Your task to perform on an android device: Open notification settings Image 0: 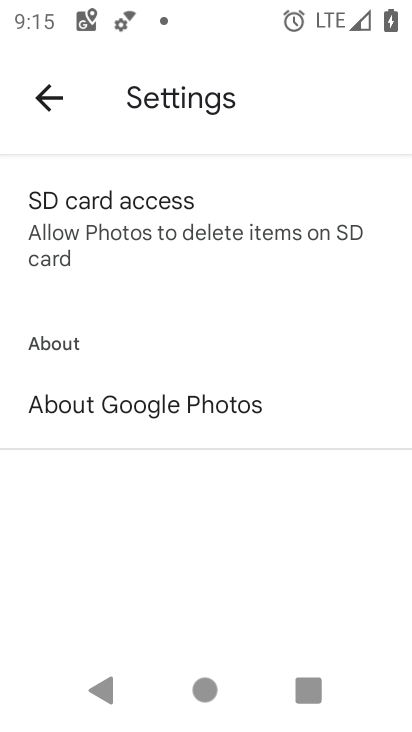
Step 0: press home button
Your task to perform on an android device: Open notification settings Image 1: 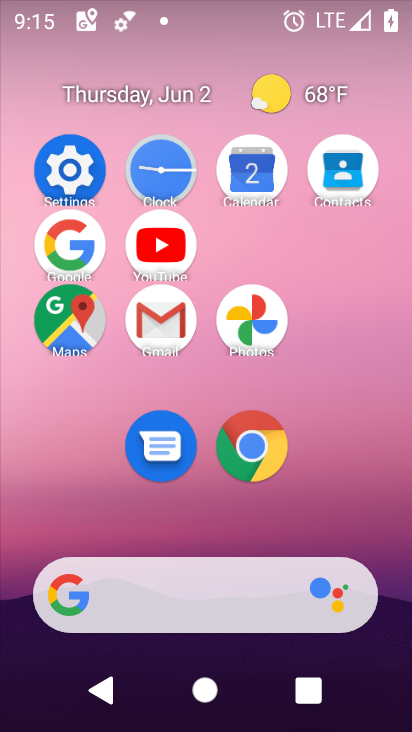
Step 1: click (50, 151)
Your task to perform on an android device: Open notification settings Image 2: 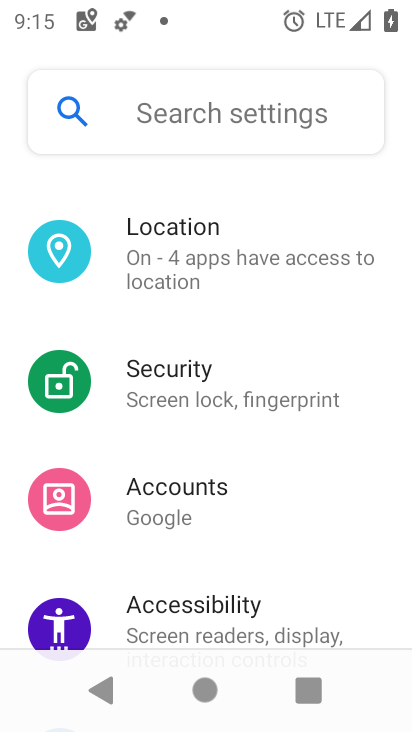
Step 2: drag from (317, 259) to (339, 629)
Your task to perform on an android device: Open notification settings Image 3: 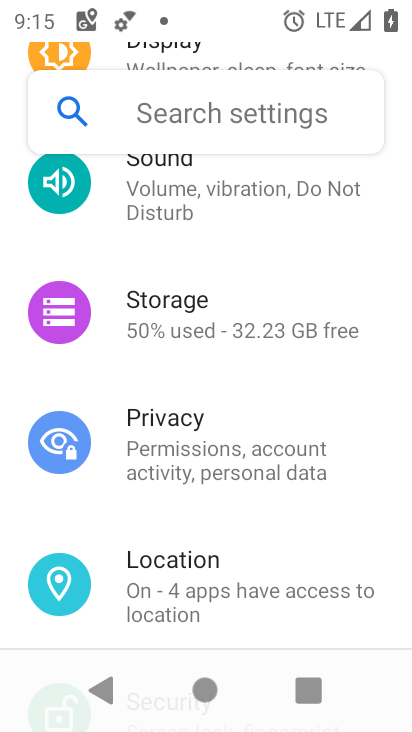
Step 3: drag from (294, 242) to (270, 506)
Your task to perform on an android device: Open notification settings Image 4: 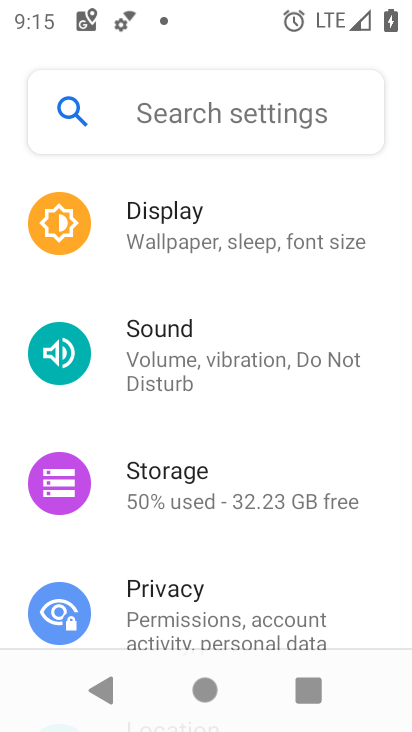
Step 4: drag from (310, 203) to (269, 507)
Your task to perform on an android device: Open notification settings Image 5: 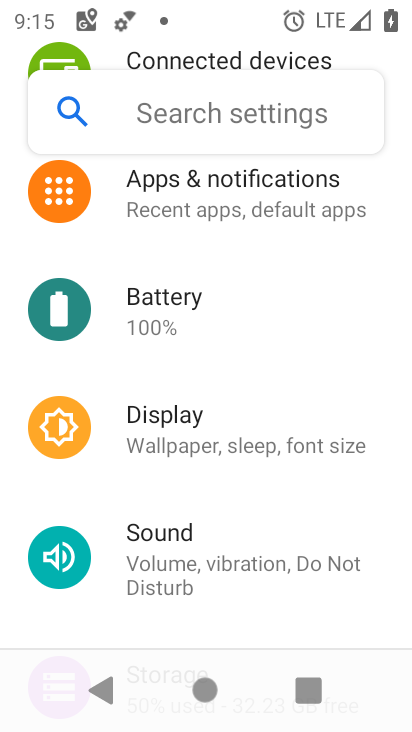
Step 5: click (275, 200)
Your task to perform on an android device: Open notification settings Image 6: 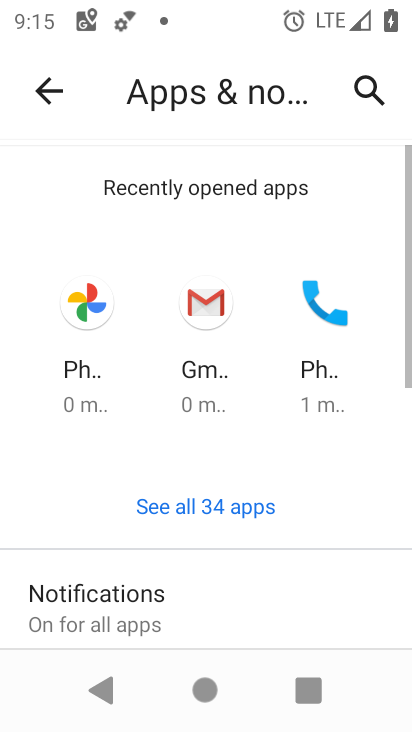
Step 6: task complete